Your task to perform on an android device: change the clock display to analog Image 0: 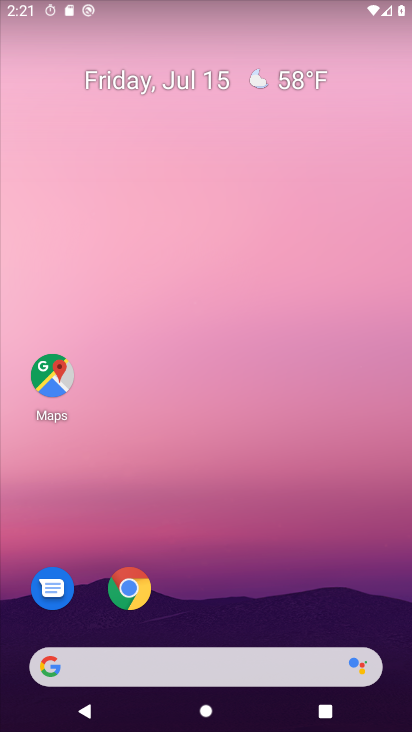
Step 0: drag from (247, 561) to (181, 10)
Your task to perform on an android device: change the clock display to analog Image 1: 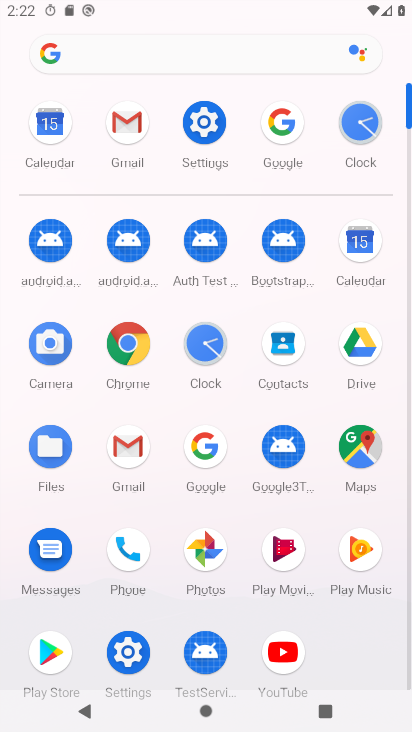
Step 1: click (204, 332)
Your task to perform on an android device: change the clock display to analog Image 2: 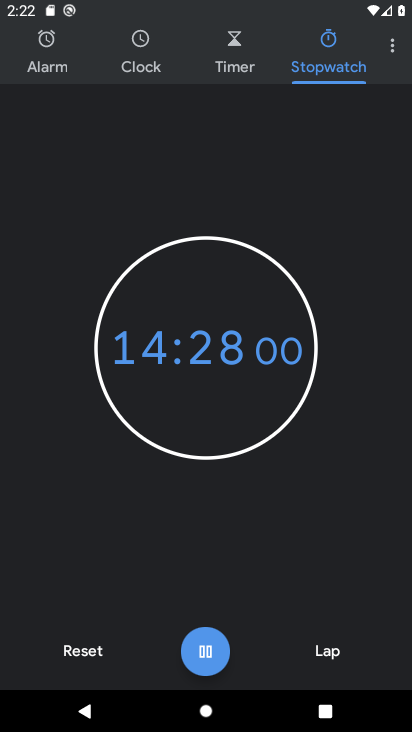
Step 2: click (390, 50)
Your task to perform on an android device: change the clock display to analog Image 3: 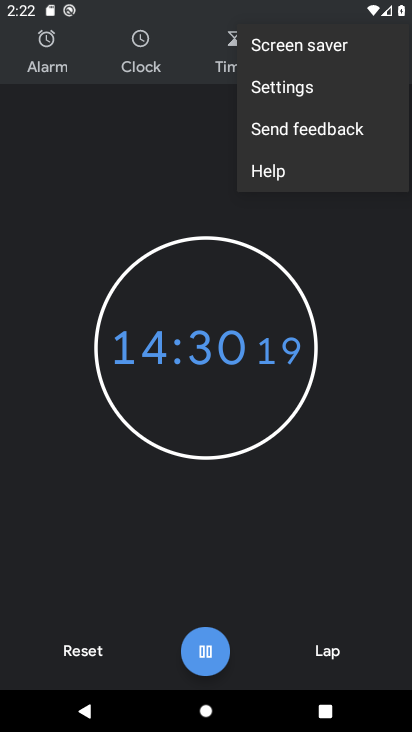
Step 3: click (321, 100)
Your task to perform on an android device: change the clock display to analog Image 4: 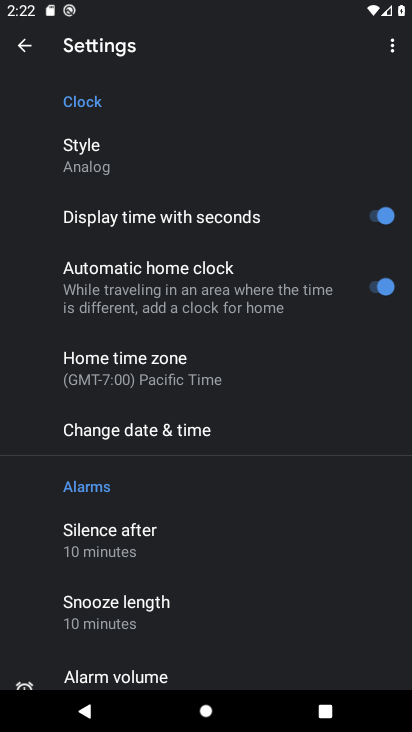
Step 4: click (154, 155)
Your task to perform on an android device: change the clock display to analog Image 5: 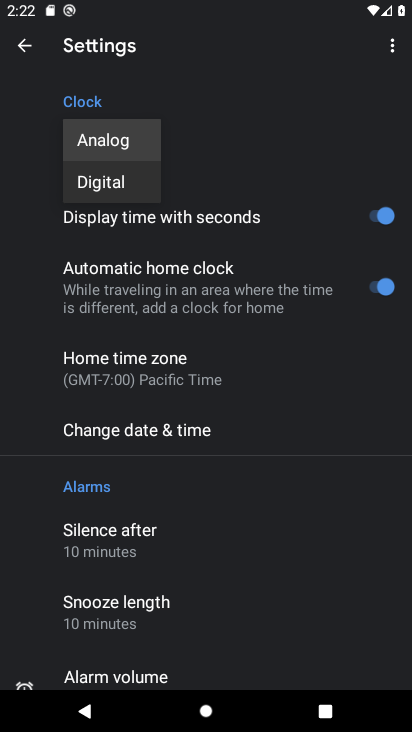
Step 5: click (153, 156)
Your task to perform on an android device: change the clock display to analog Image 6: 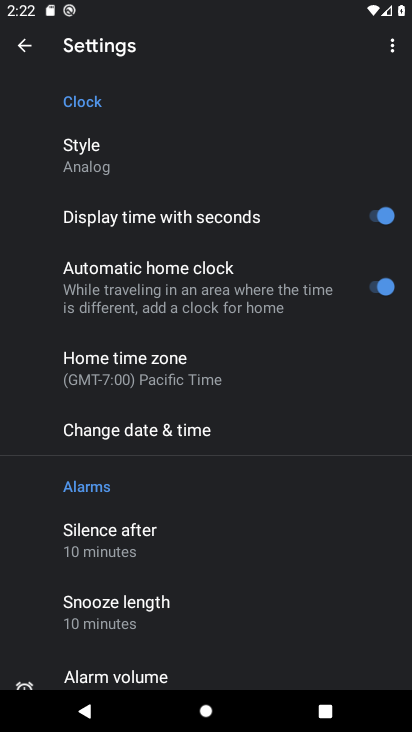
Step 6: task complete